Your task to perform on an android device: open app "Duolingo: language lessons" (install if not already installed) and go to login screen Image 0: 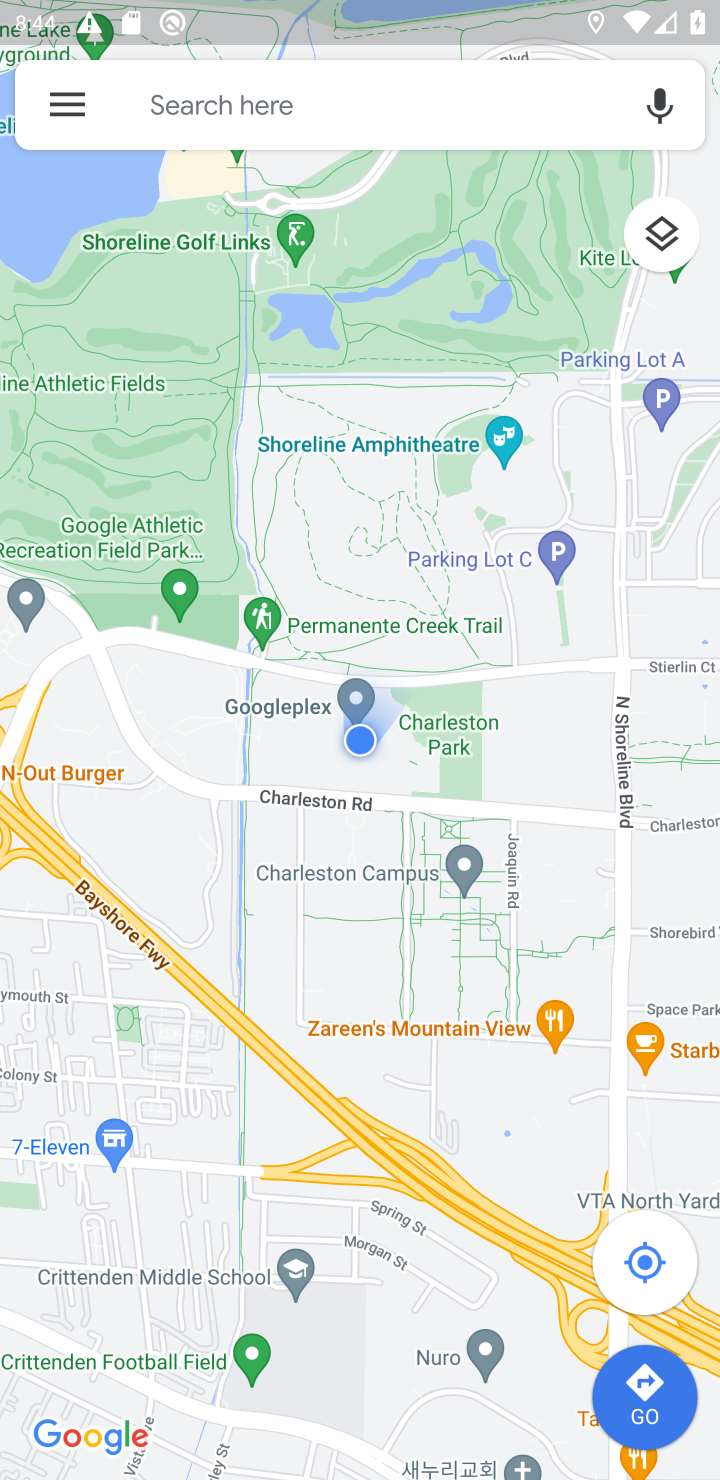
Step 0: press home button
Your task to perform on an android device: open app "Duolingo: language lessons" (install if not already installed) and go to login screen Image 1: 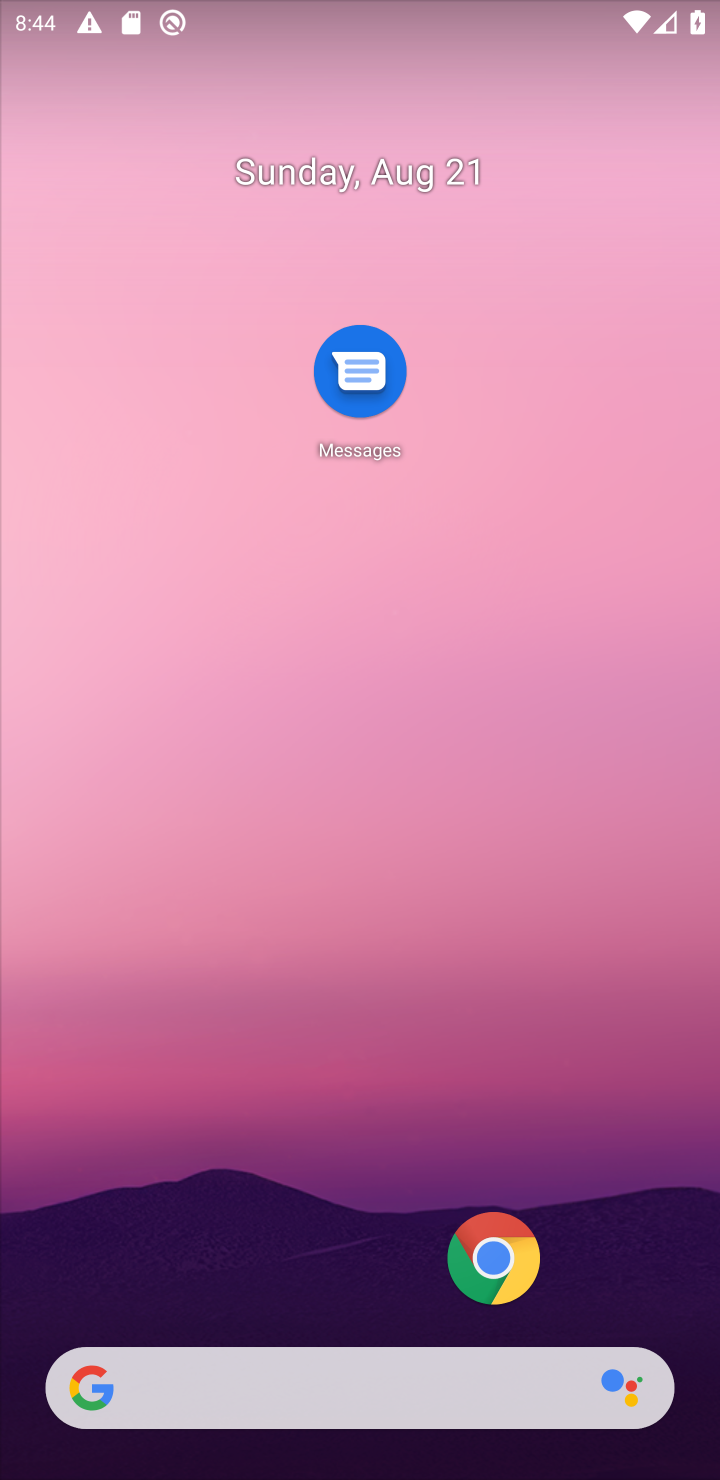
Step 1: drag from (463, 948) to (411, 45)
Your task to perform on an android device: open app "Duolingo: language lessons" (install if not already installed) and go to login screen Image 2: 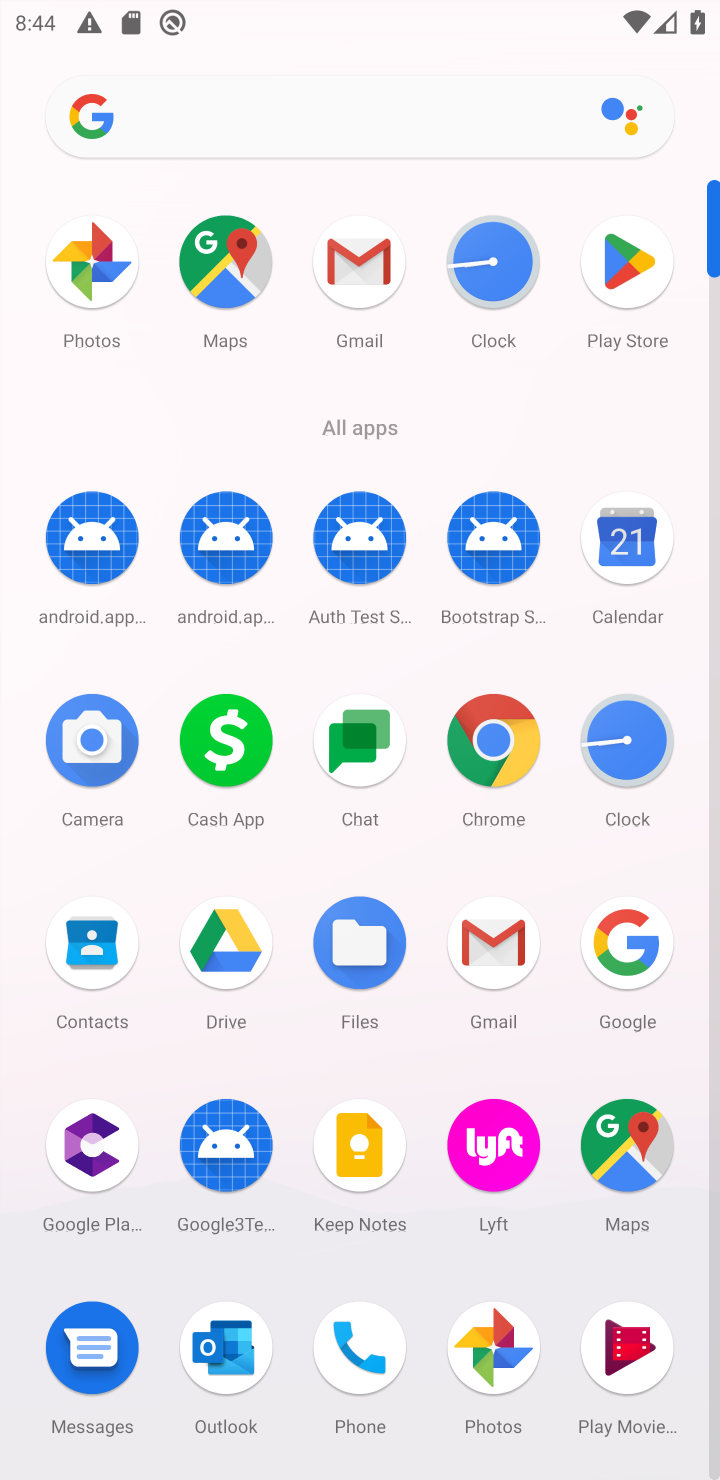
Step 2: click (618, 273)
Your task to perform on an android device: open app "Duolingo: language lessons" (install if not already installed) and go to login screen Image 3: 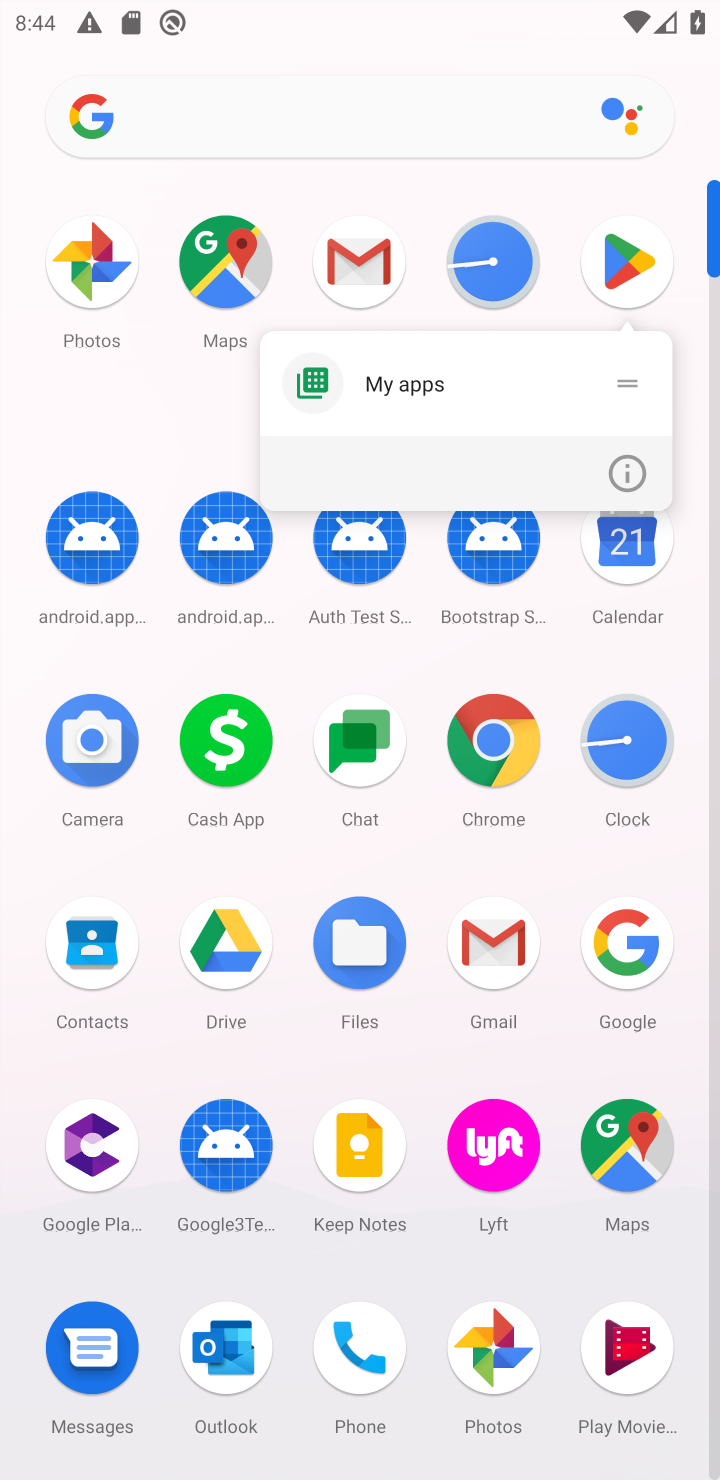
Step 3: click (627, 248)
Your task to perform on an android device: open app "Duolingo: language lessons" (install if not already installed) and go to login screen Image 4: 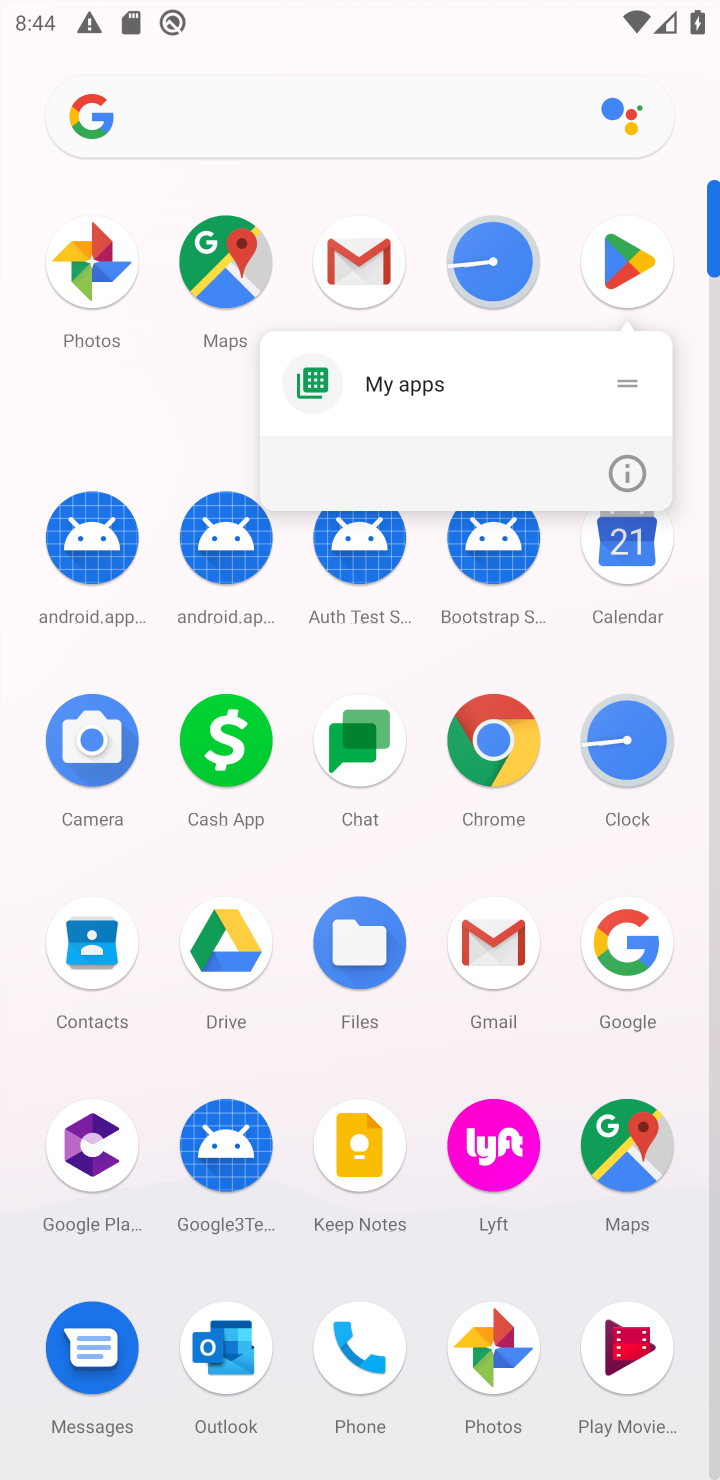
Step 4: click (629, 273)
Your task to perform on an android device: open app "Duolingo: language lessons" (install if not already installed) and go to login screen Image 5: 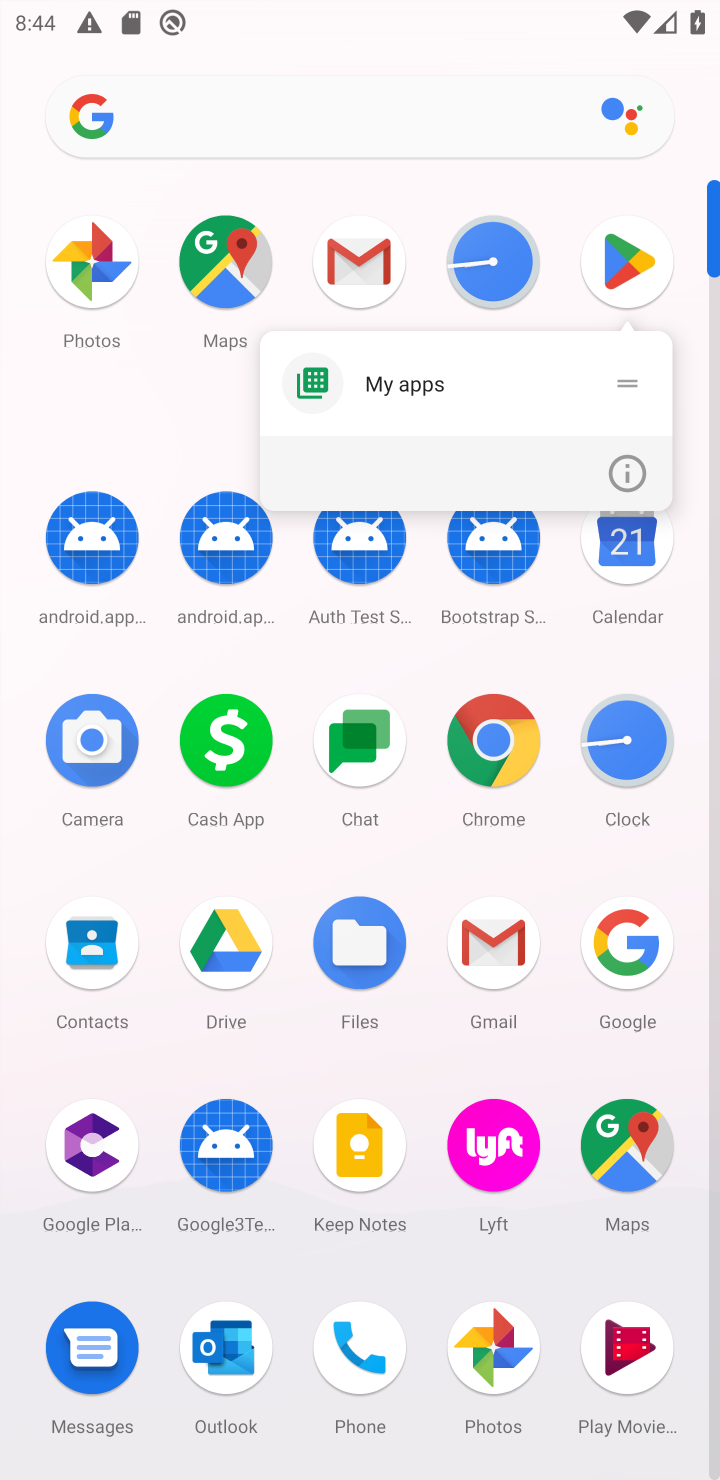
Step 5: click (629, 273)
Your task to perform on an android device: open app "Duolingo: language lessons" (install if not already installed) and go to login screen Image 6: 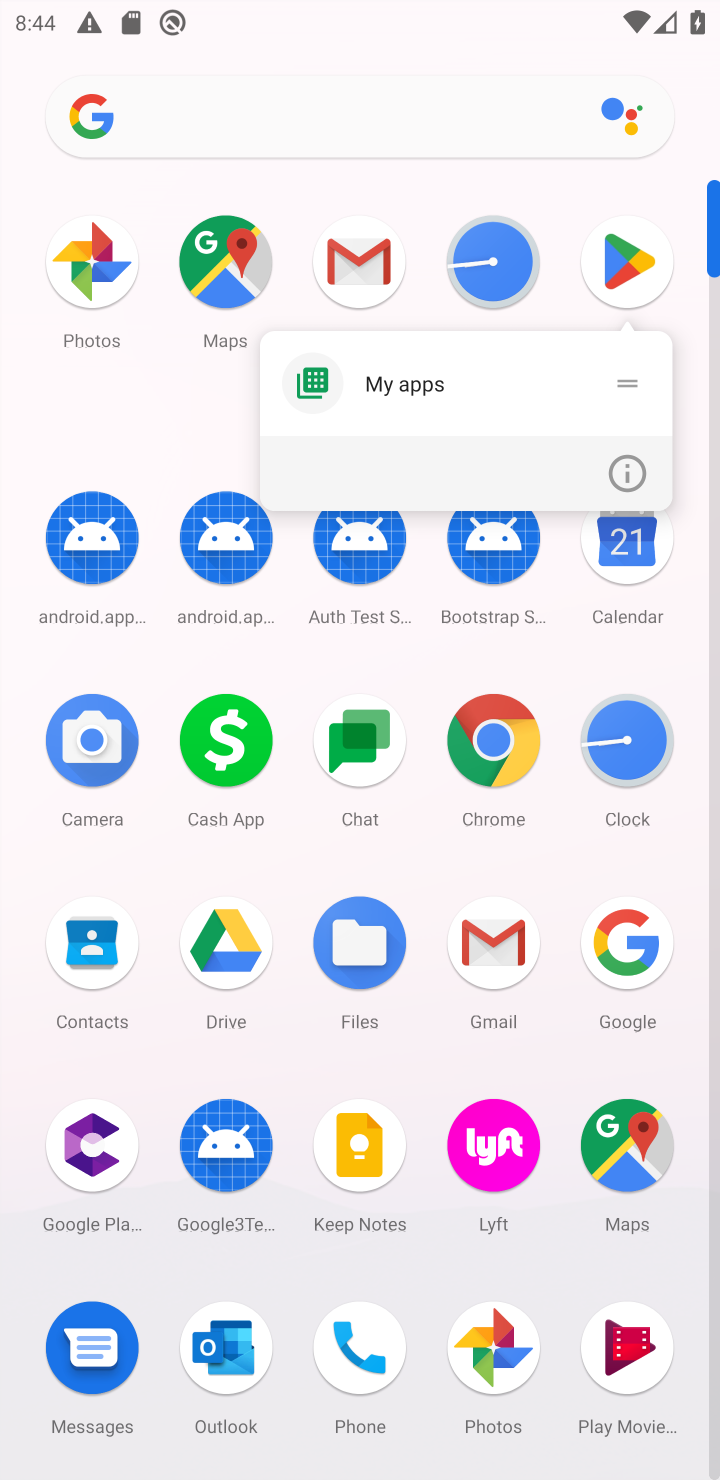
Step 6: click (629, 275)
Your task to perform on an android device: open app "Duolingo: language lessons" (install if not already installed) and go to login screen Image 7: 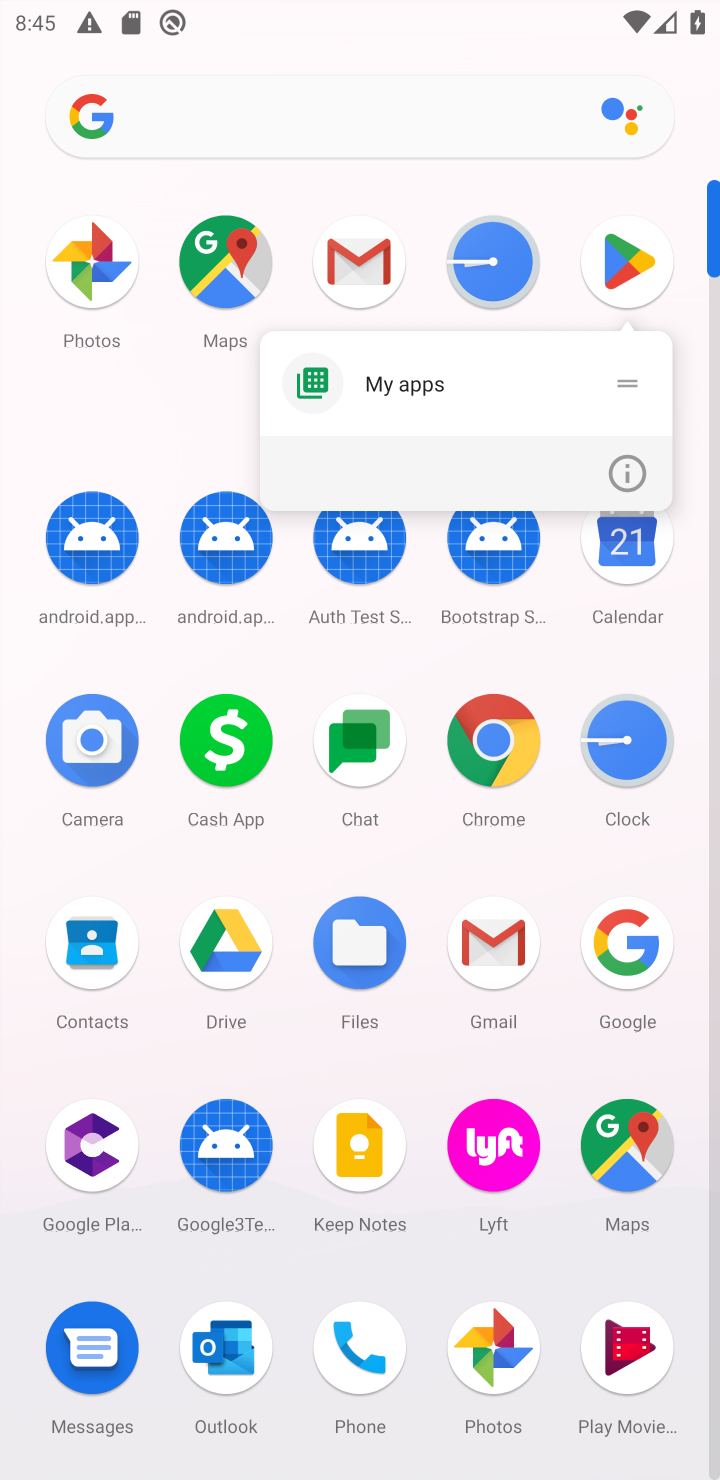
Step 7: click (629, 273)
Your task to perform on an android device: open app "Duolingo: language lessons" (install if not already installed) and go to login screen Image 8: 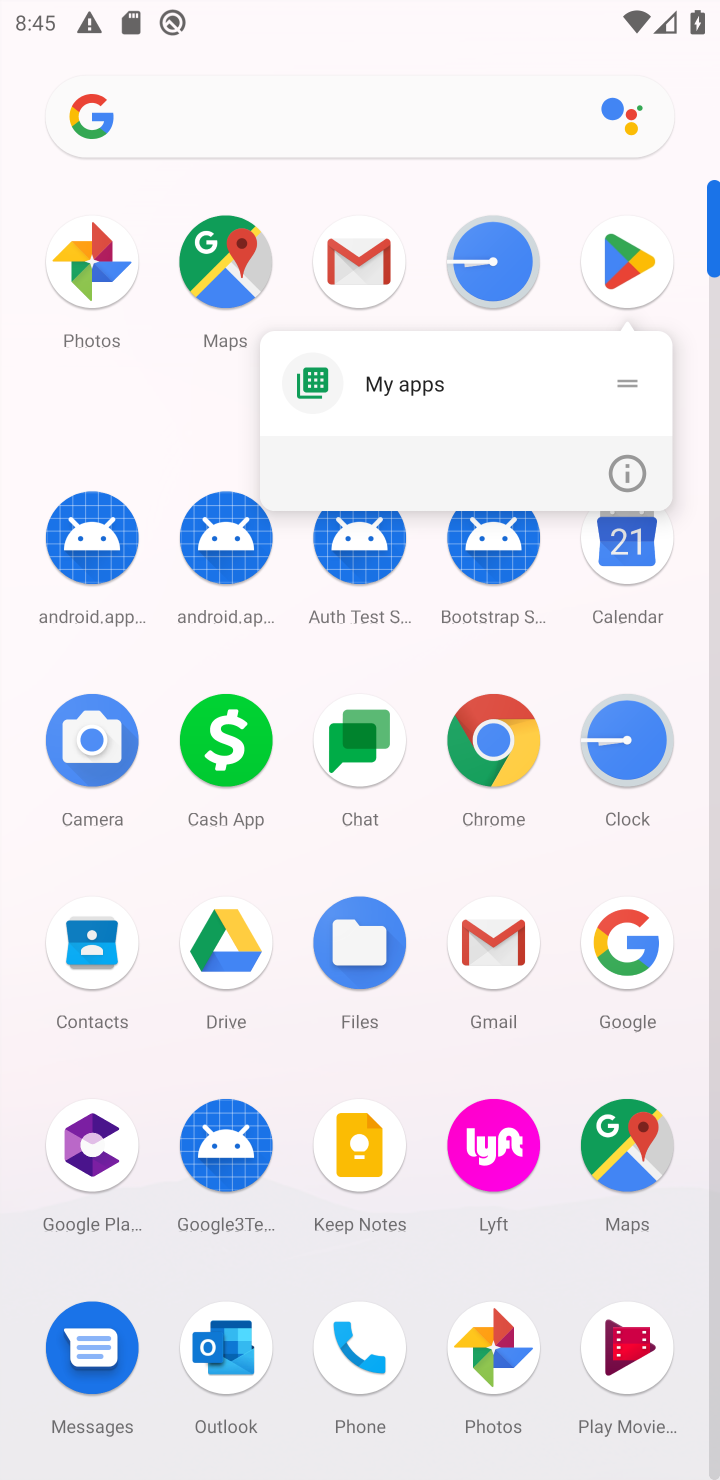
Step 8: click (629, 275)
Your task to perform on an android device: open app "Duolingo: language lessons" (install if not already installed) and go to login screen Image 9: 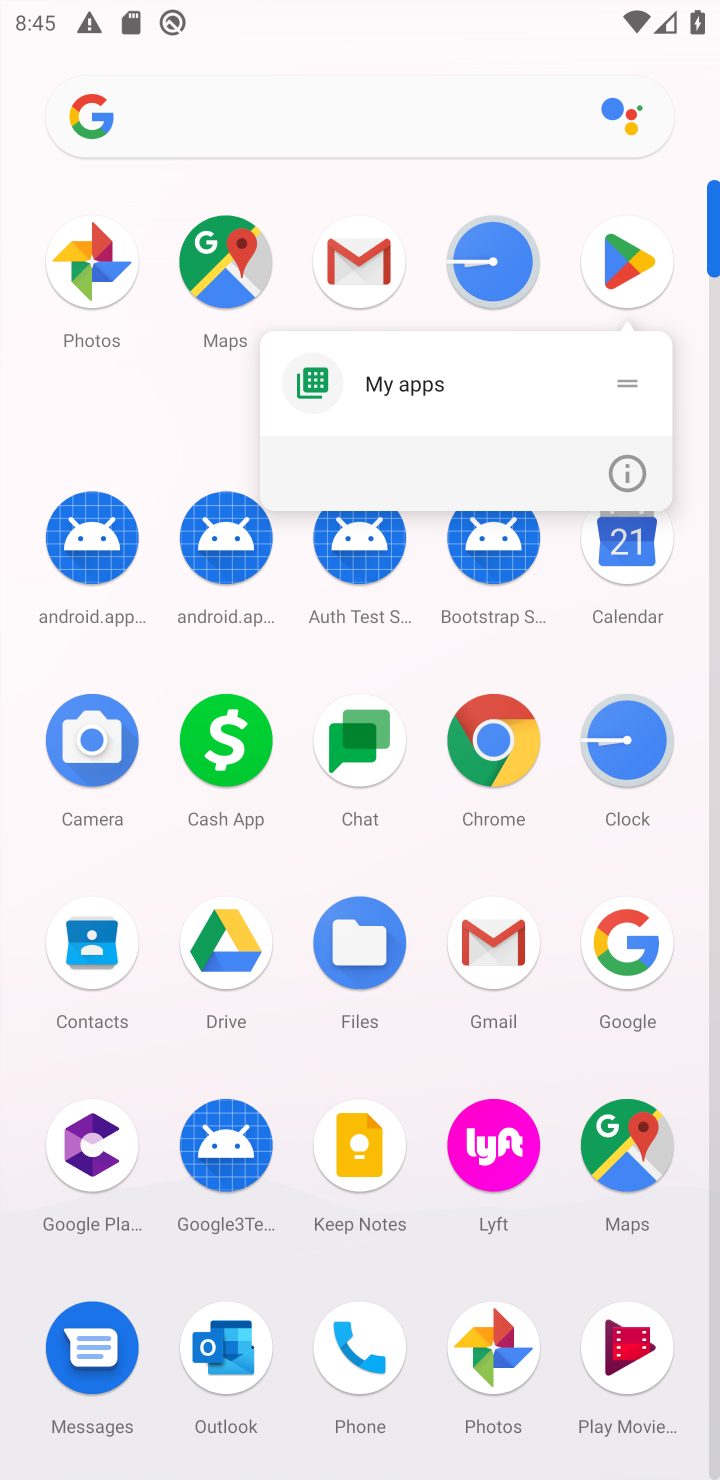
Step 9: click (629, 271)
Your task to perform on an android device: open app "Duolingo: language lessons" (install if not already installed) and go to login screen Image 10: 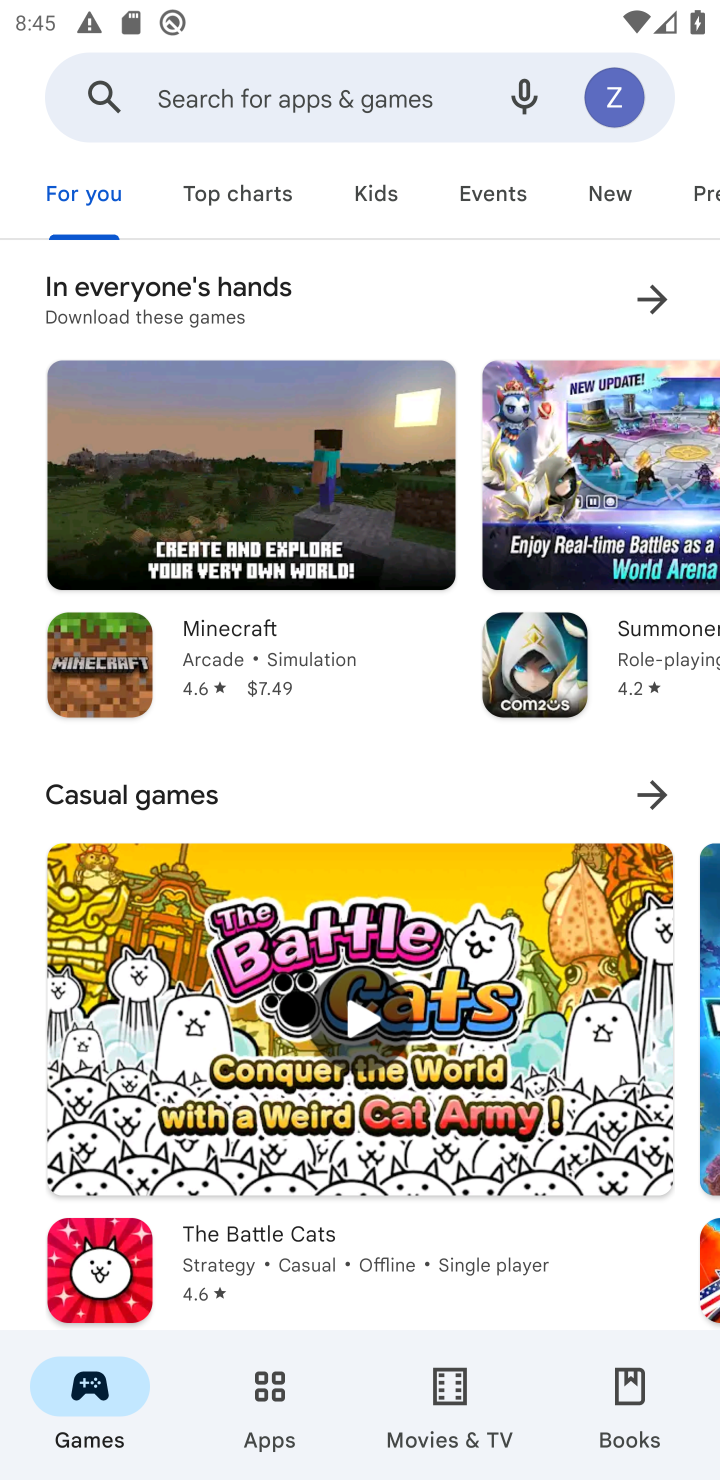
Step 10: click (188, 128)
Your task to perform on an android device: open app "Duolingo: language lessons" (install if not already installed) and go to login screen Image 11: 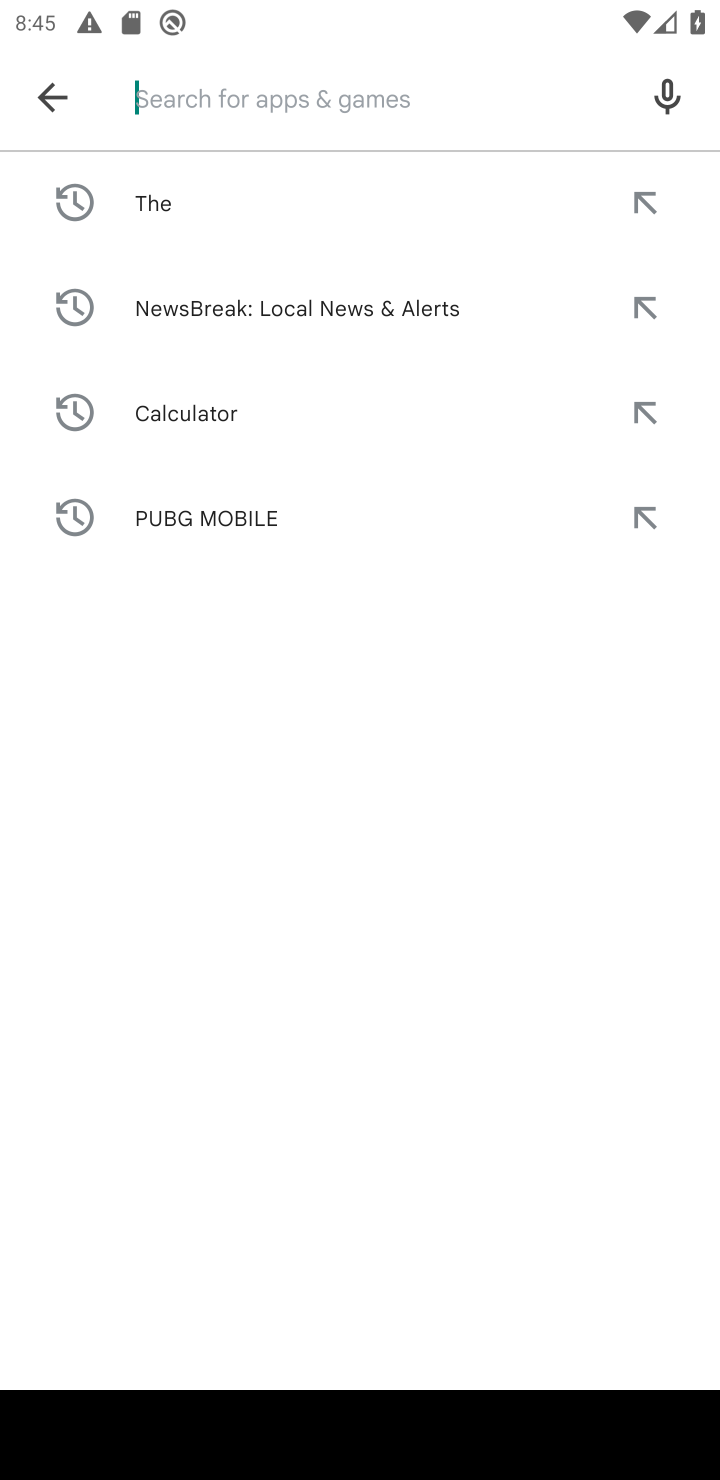
Step 11: type "Duolingo: language lesson"
Your task to perform on an android device: open app "Duolingo: language lessons" (install if not already installed) and go to login screen Image 12: 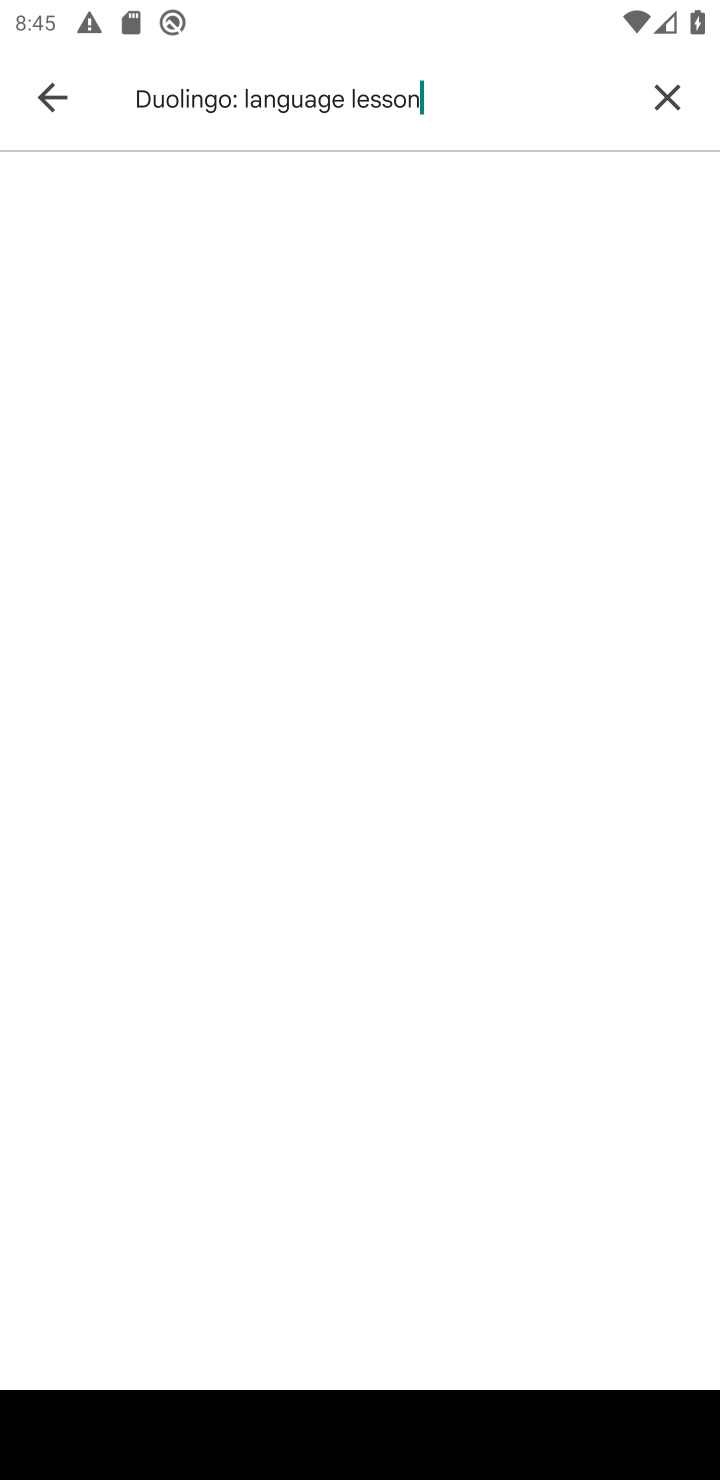
Step 12: press enter
Your task to perform on an android device: open app "Duolingo: language lessons" (install if not already installed) and go to login screen Image 13: 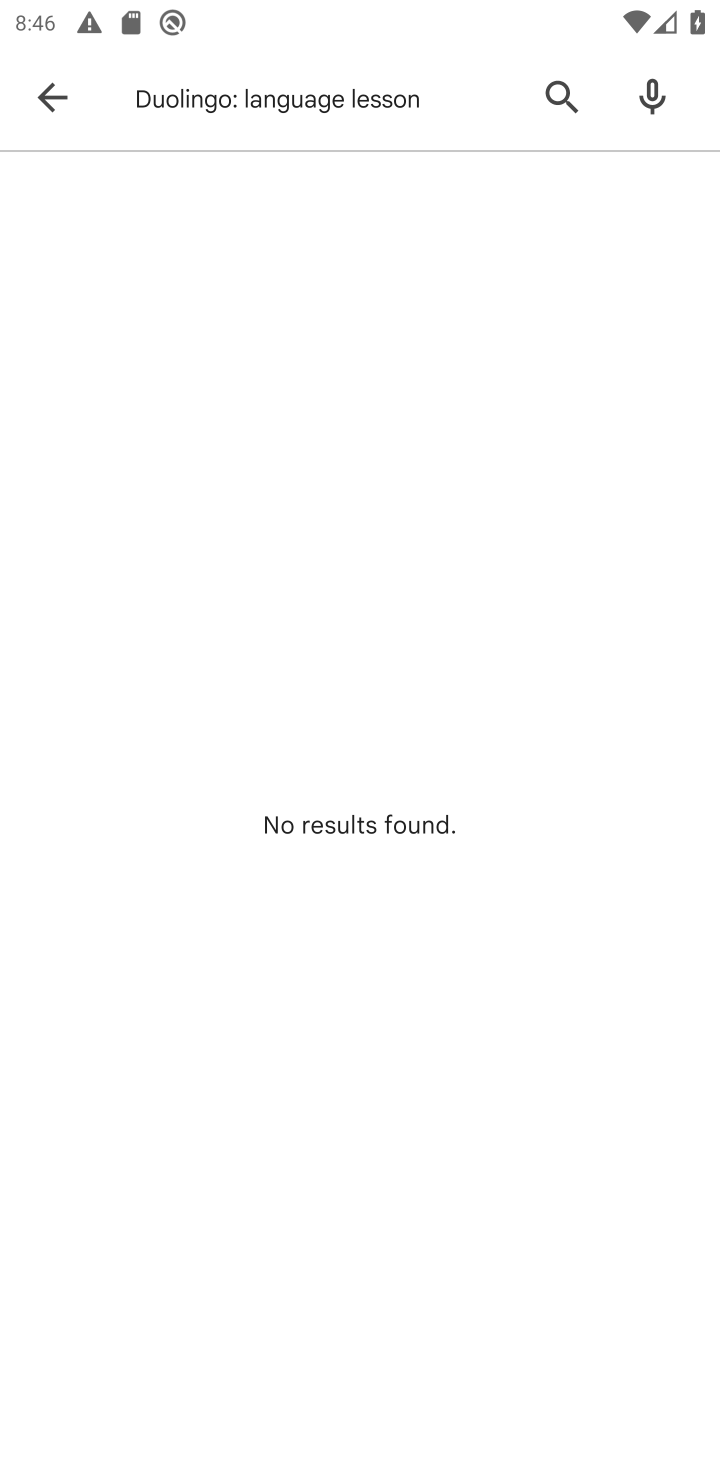
Step 13: task complete